Your task to perform on an android device: star an email in the gmail app Image 0: 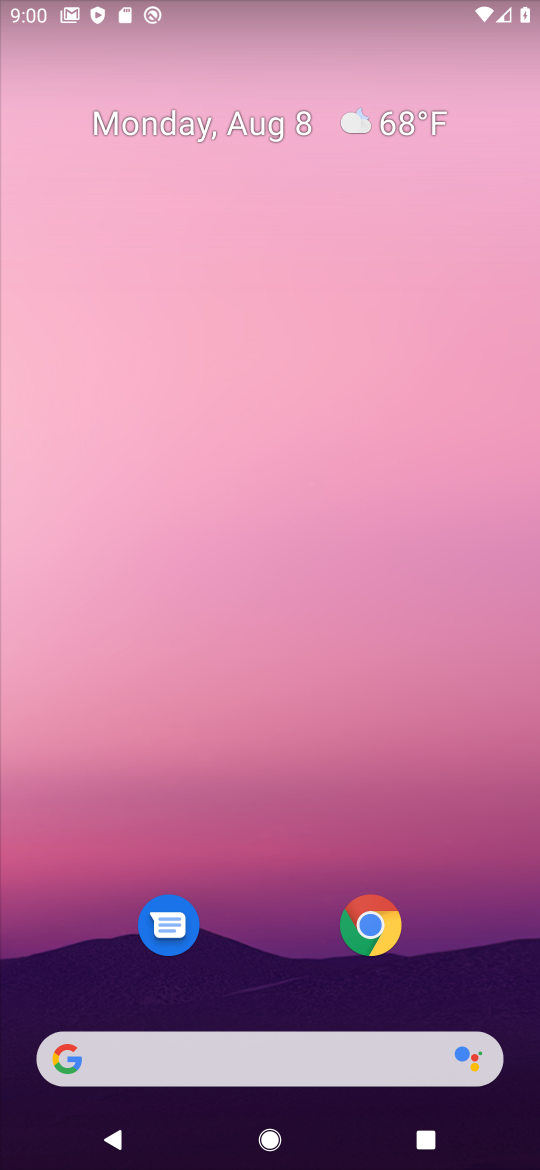
Step 0: drag from (251, 984) to (209, 647)
Your task to perform on an android device: star an email in the gmail app Image 1: 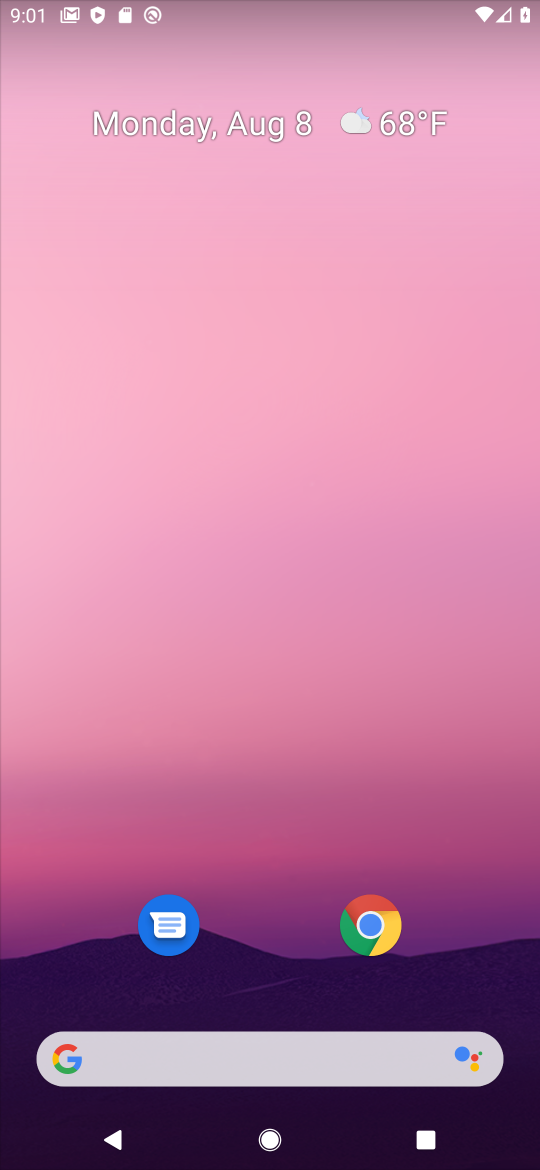
Step 1: drag from (253, 945) to (214, 234)
Your task to perform on an android device: star an email in the gmail app Image 2: 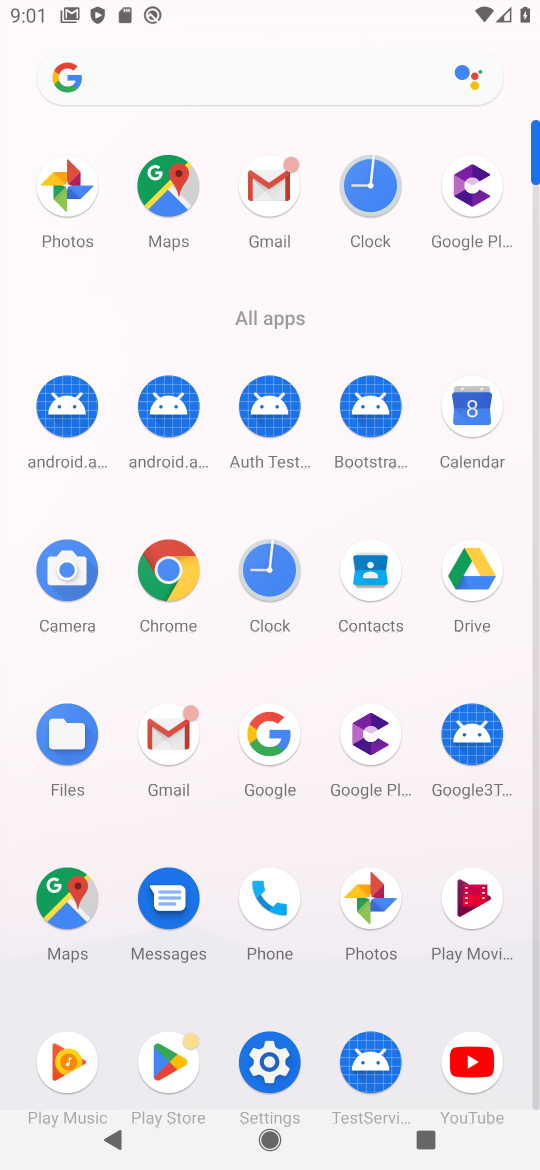
Step 2: click (180, 734)
Your task to perform on an android device: star an email in the gmail app Image 3: 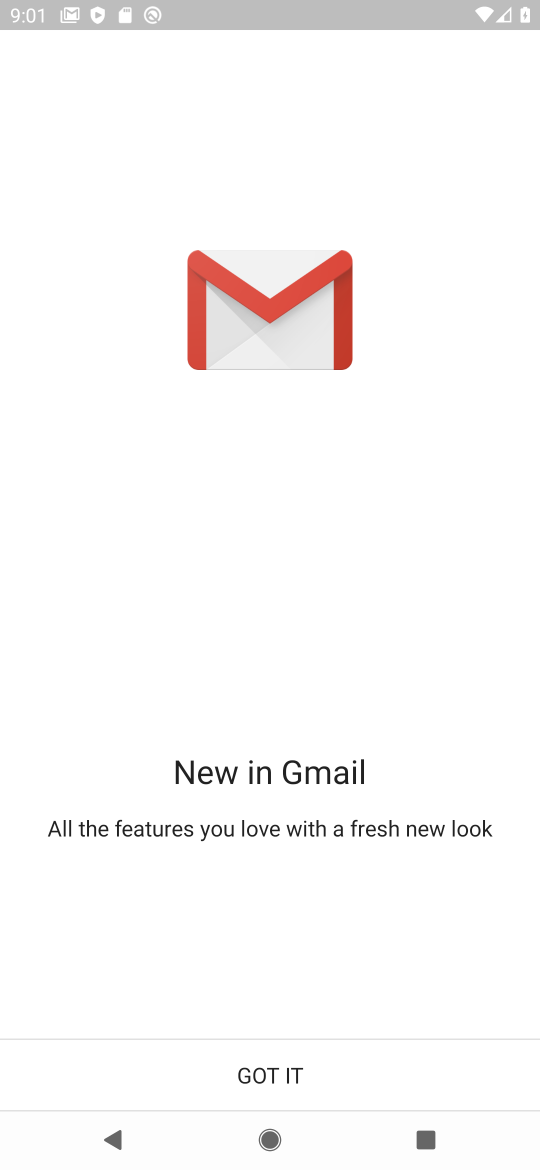
Step 3: click (266, 1080)
Your task to perform on an android device: star an email in the gmail app Image 4: 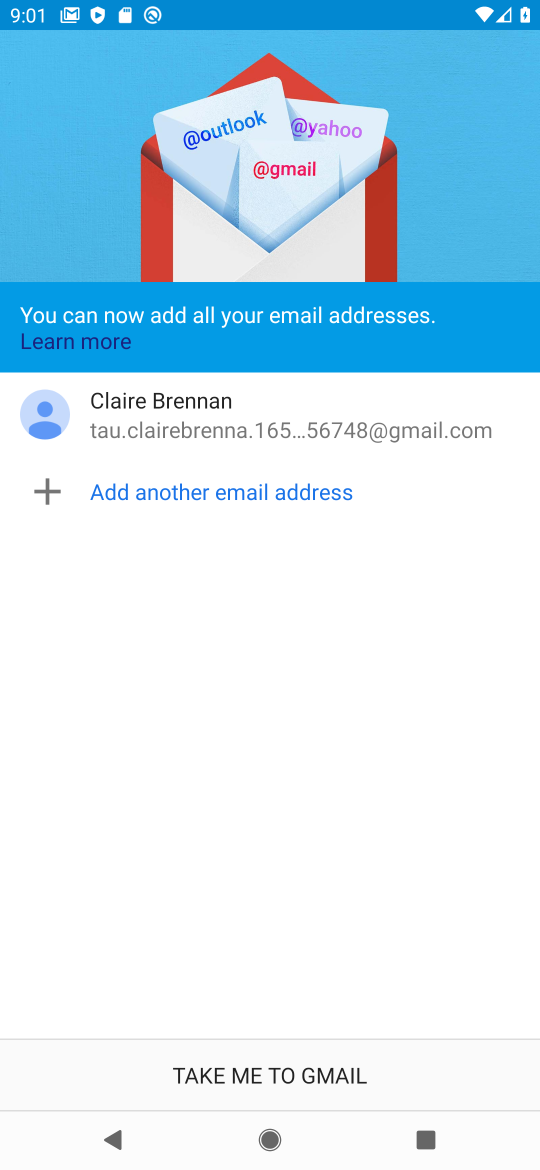
Step 4: click (266, 1079)
Your task to perform on an android device: star an email in the gmail app Image 5: 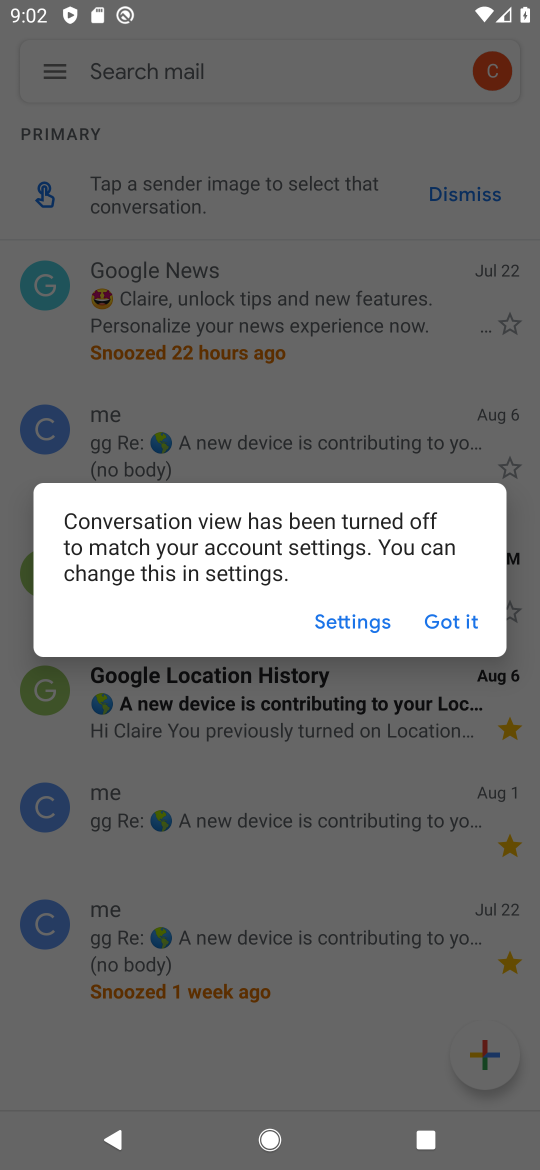
Step 5: click (450, 613)
Your task to perform on an android device: star an email in the gmail app Image 6: 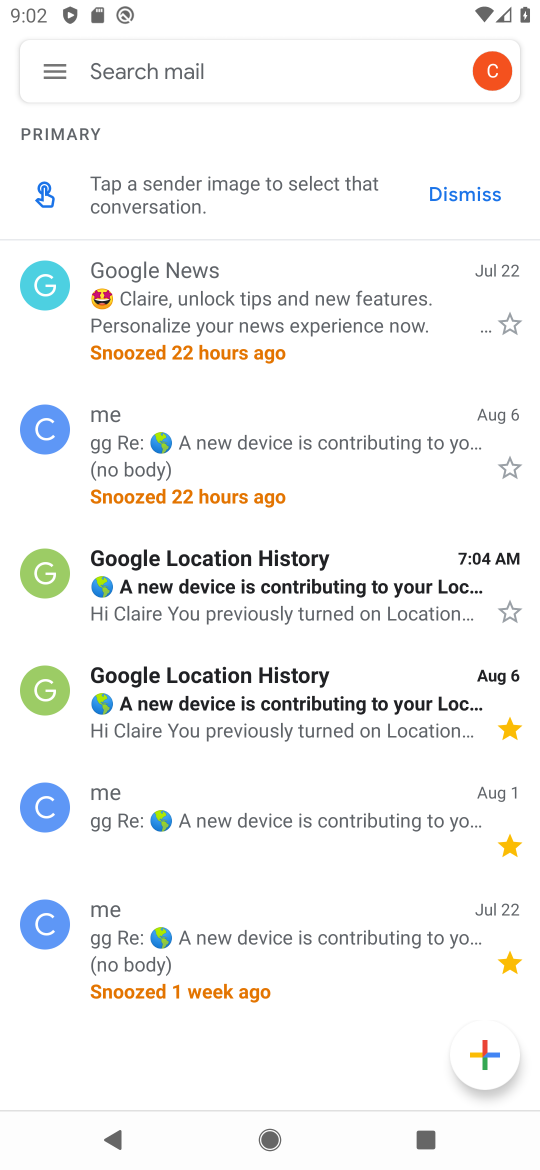
Step 6: click (505, 325)
Your task to perform on an android device: star an email in the gmail app Image 7: 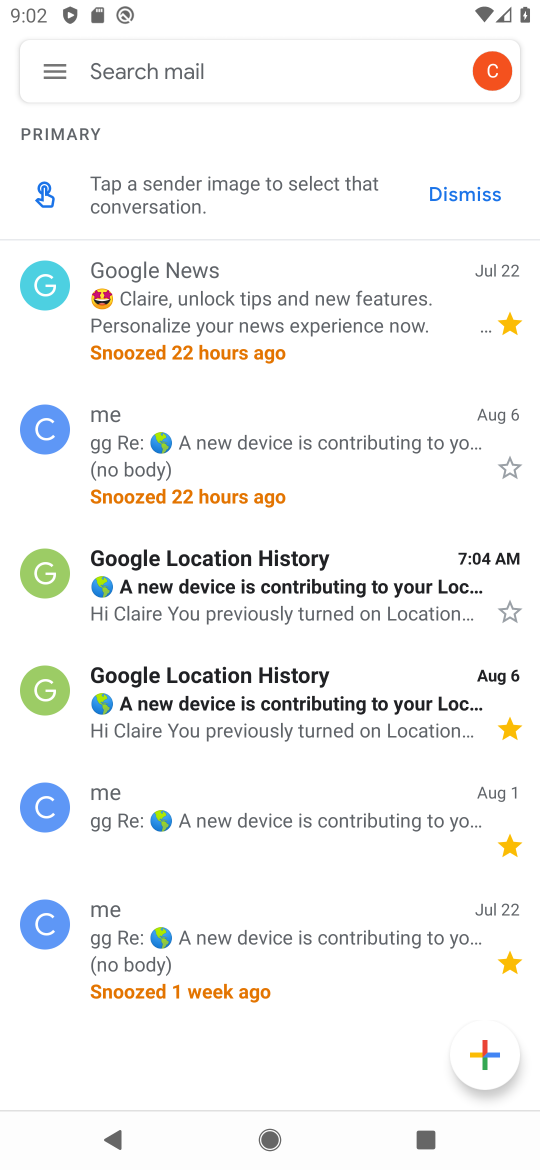
Step 7: task complete